Your task to perform on an android device: Go to Maps Image 0: 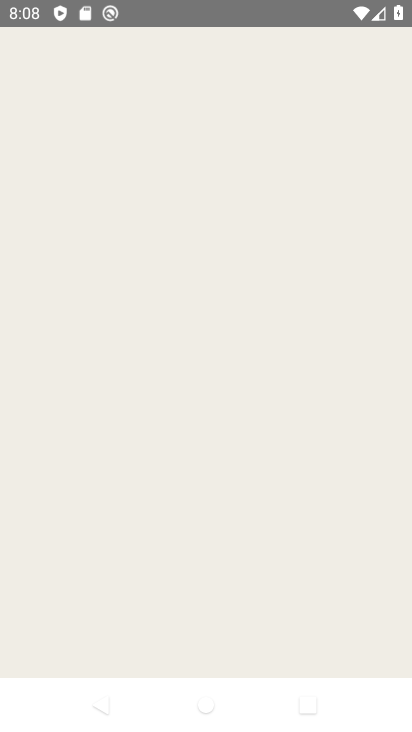
Step 0: press home button
Your task to perform on an android device: Go to Maps Image 1: 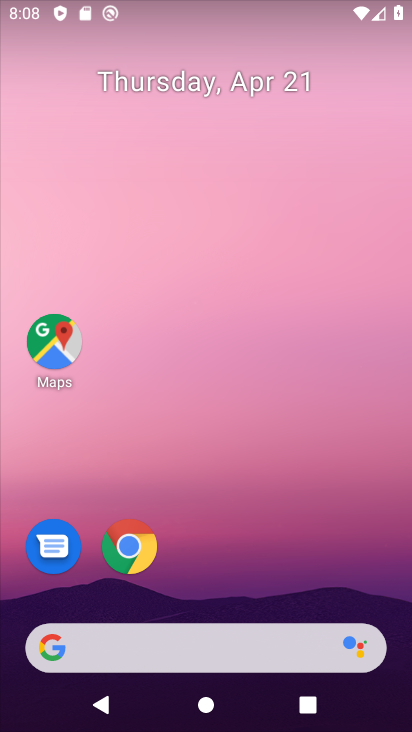
Step 1: click (58, 337)
Your task to perform on an android device: Go to Maps Image 2: 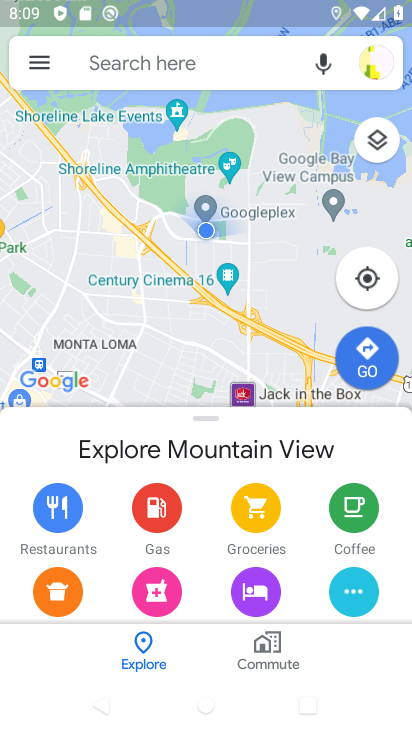
Step 2: task complete